Your task to perform on an android device: Open Chrome and go to the settings page Image 0: 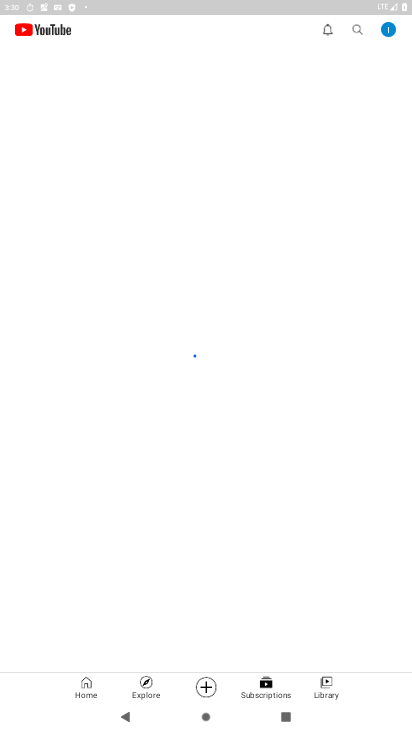
Step 0: press back button
Your task to perform on an android device: Open Chrome and go to the settings page Image 1: 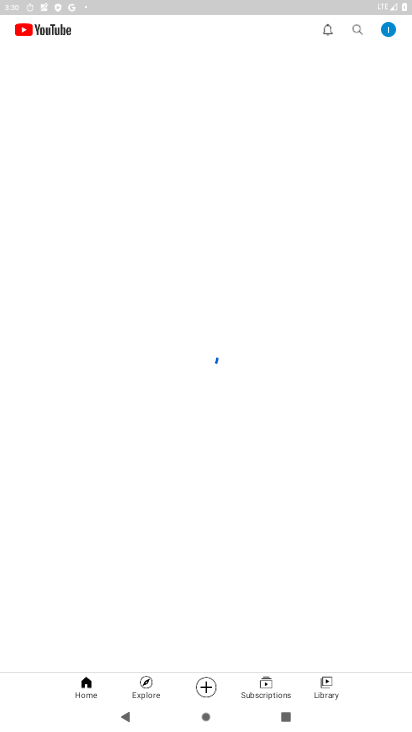
Step 1: press back button
Your task to perform on an android device: Open Chrome and go to the settings page Image 2: 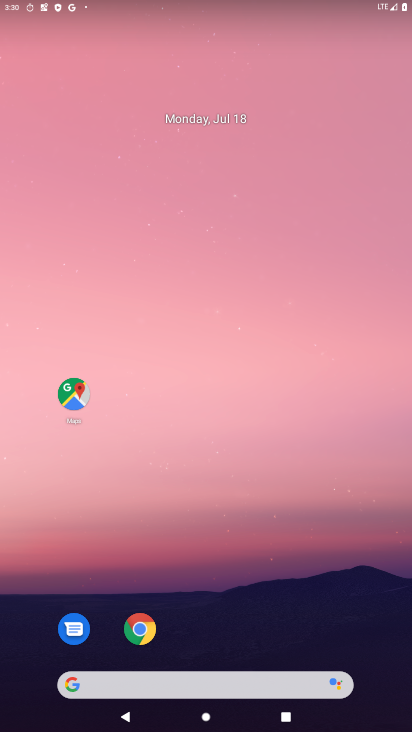
Step 2: drag from (208, 657) to (147, 101)
Your task to perform on an android device: Open Chrome and go to the settings page Image 3: 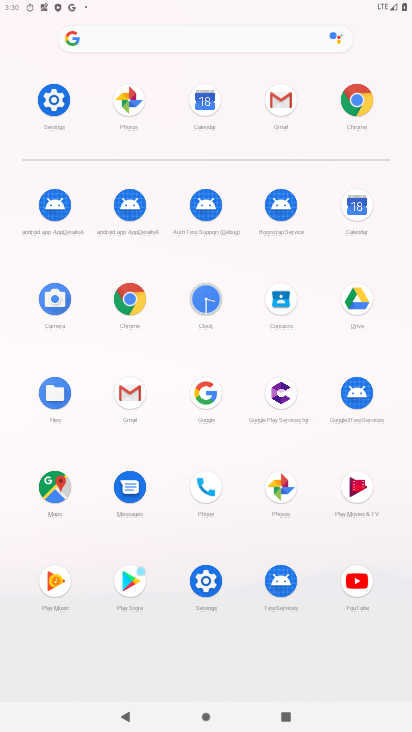
Step 3: click (129, 300)
Your task to perform on an android device: Open Chrome and go to the settings page Image 4: 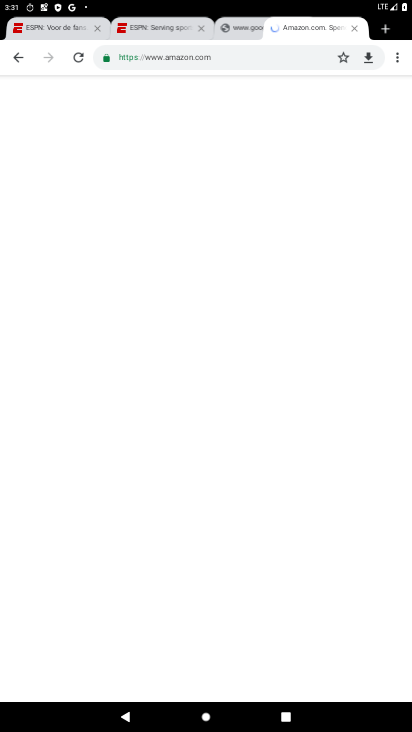
Step 4: task complete